Your task to perform on an android device: Open Google Maps and go to "Timeline" Image 0: 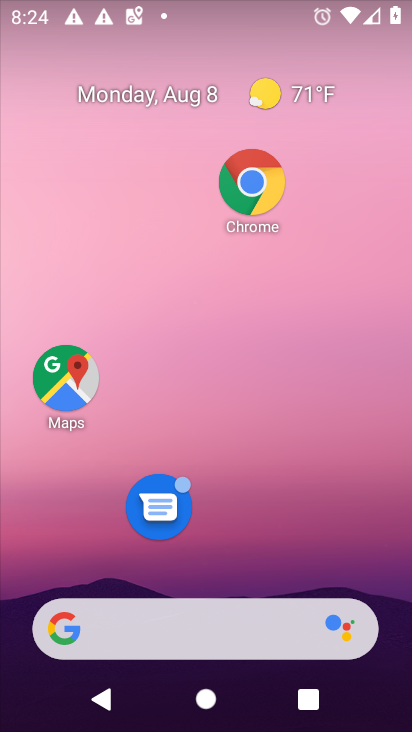
Step 0: drag from (244, 539) to (135, 97)
Your task to perform on an android device: Open Google Maps and go to "Timeline" Image 1: 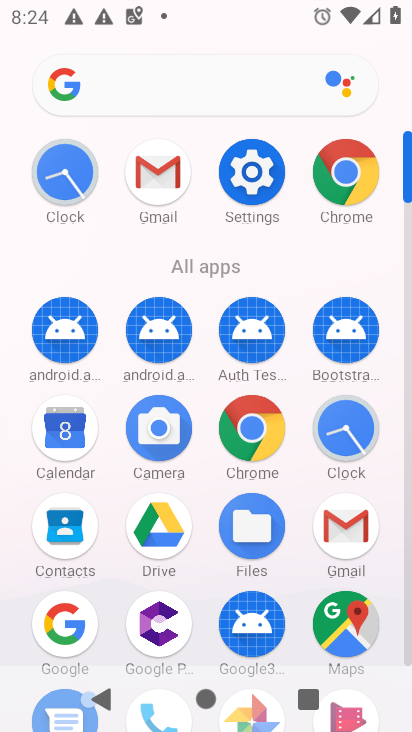
Step 1: click (340, 599)
Your task to perform on an android device: Open Google Maps and go to "Timeline" Image 2: 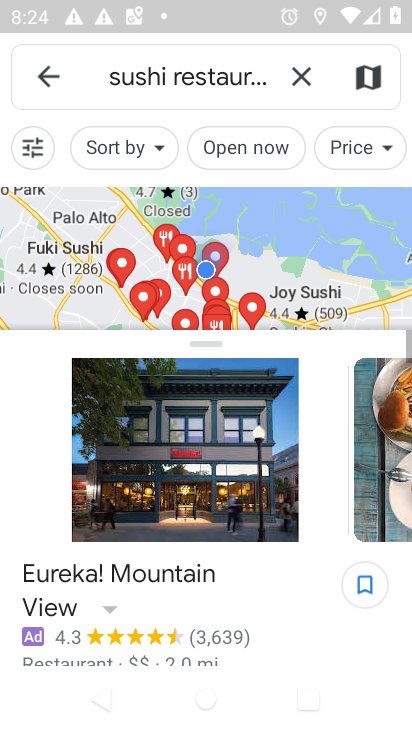
Step 2: click (28, 59)
Your task to perform on an android device: Open Google Maps and go to "Timeline" Image 3: 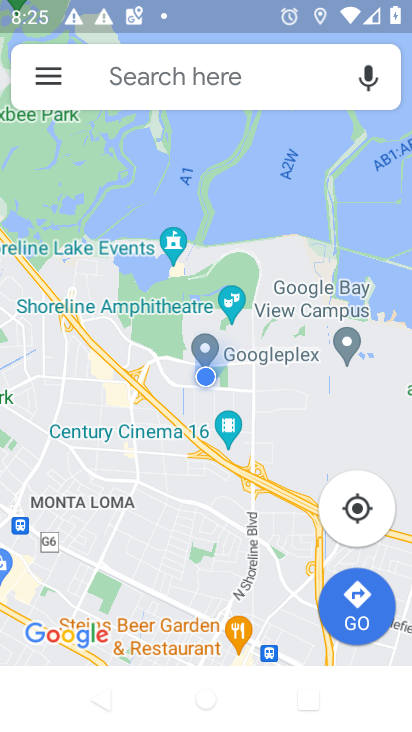
Step 3: click (46, 83)
Your task to perform on an android device: Open Google Maps and go to "Timeline" Image 4: 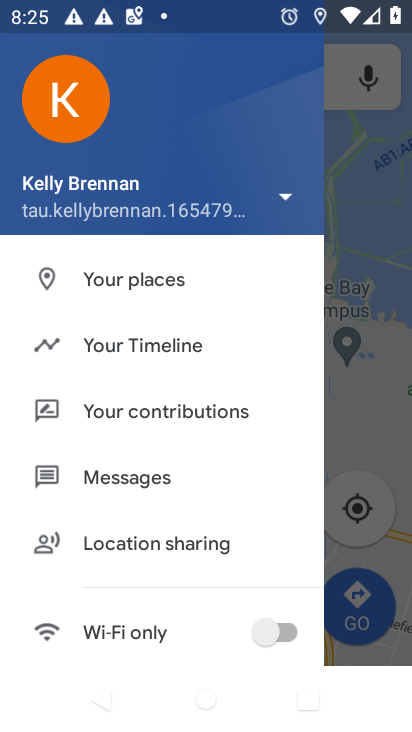
Step 4: click (97, 358)
Your task to perform on an android device: Open Google Maps and go to "Timeline" Image 5: 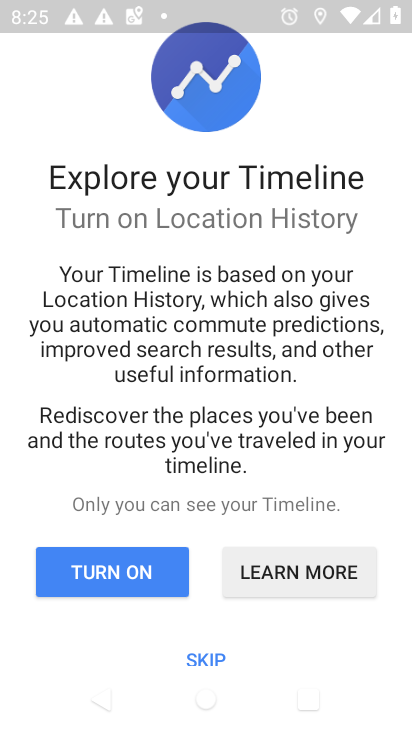
Step 5: click (217, 644)
Your task to perform on an android device: Open Google Maps and go to "Timeline" Image 6: 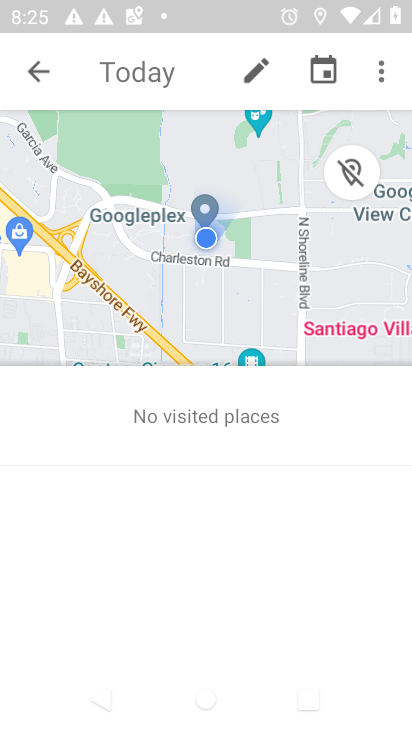
Step 6: task complete